Your task to perform on an android device: Search for "razer blade" on target.com, select the first entry, and add it to the cart. Image 0: 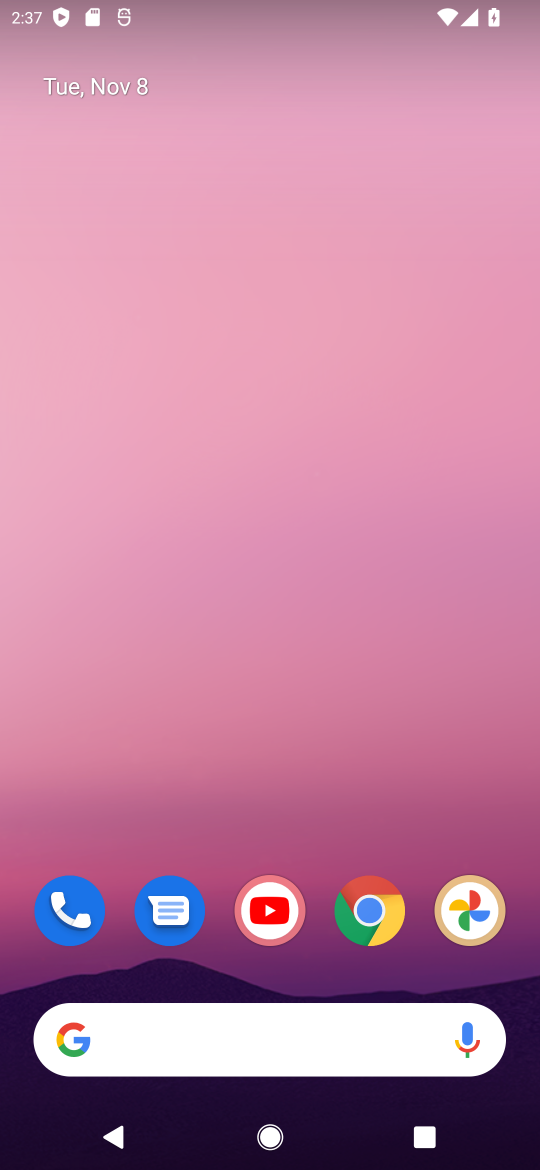
Step 0: drag from (304, 991) to (314, 324)
Your task to perform on an android device: Search for "razer blade" on target.com, select the first entry, and add it to the cart. Image 1: 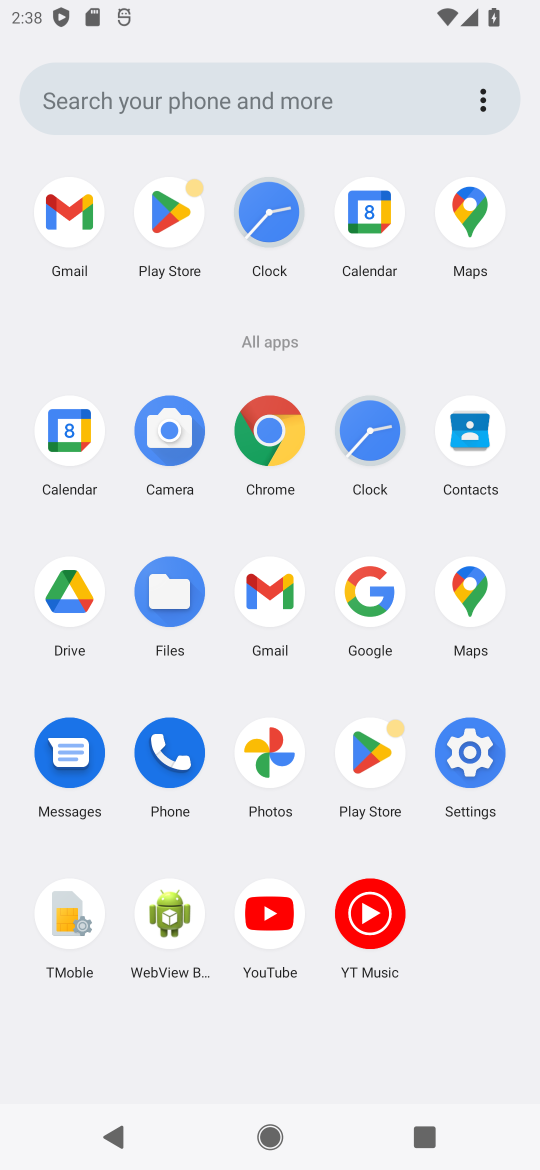
Step 1: click (269, 445)
Your task to perform on an android device: Search for "razer blade" on target.com, select the first entry, and add it to the cart. Image 2: 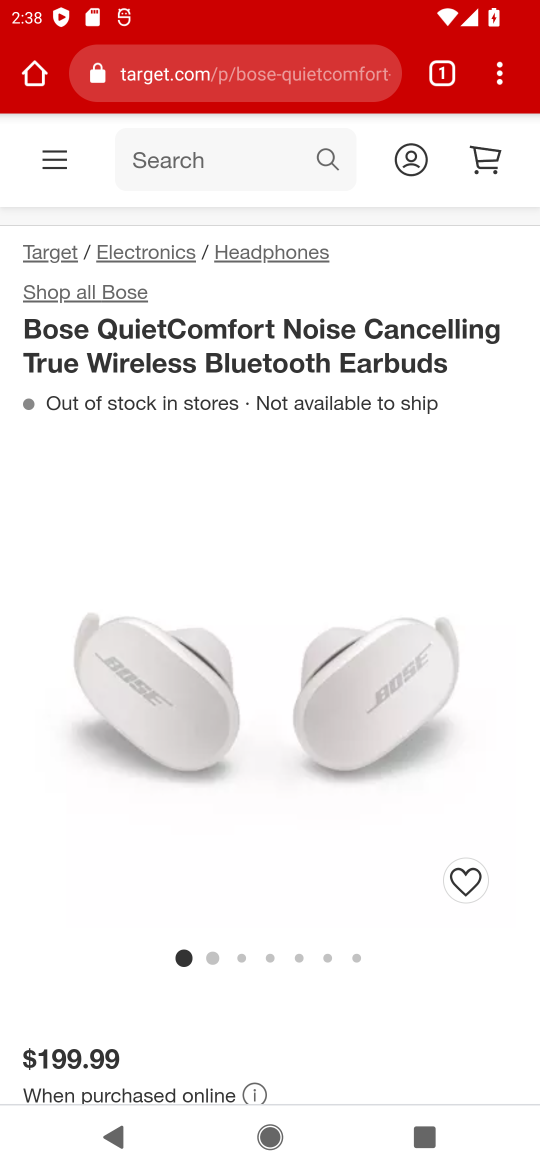
Step 2: click (328, 77)
Your task to perform on an android device: Search for "razer blade" on target.com, select the first entry, and add it to the cart. Image 3: 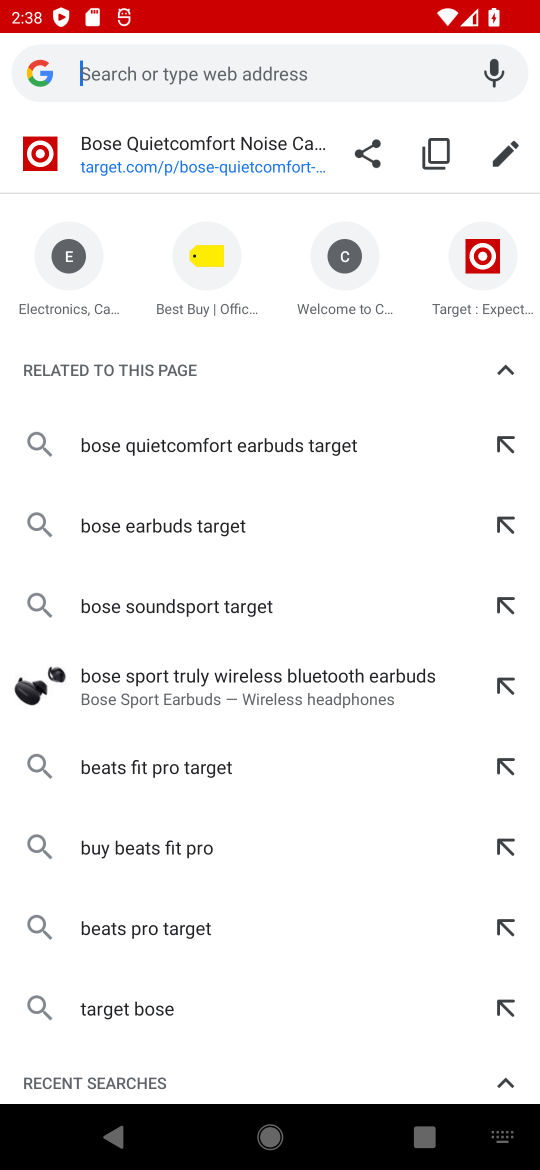
Step 3: type "target.com"
Your task to perform on an android device: Search for "razer blade" on target.com, select the first entry, and add it to the cart. Image 4: 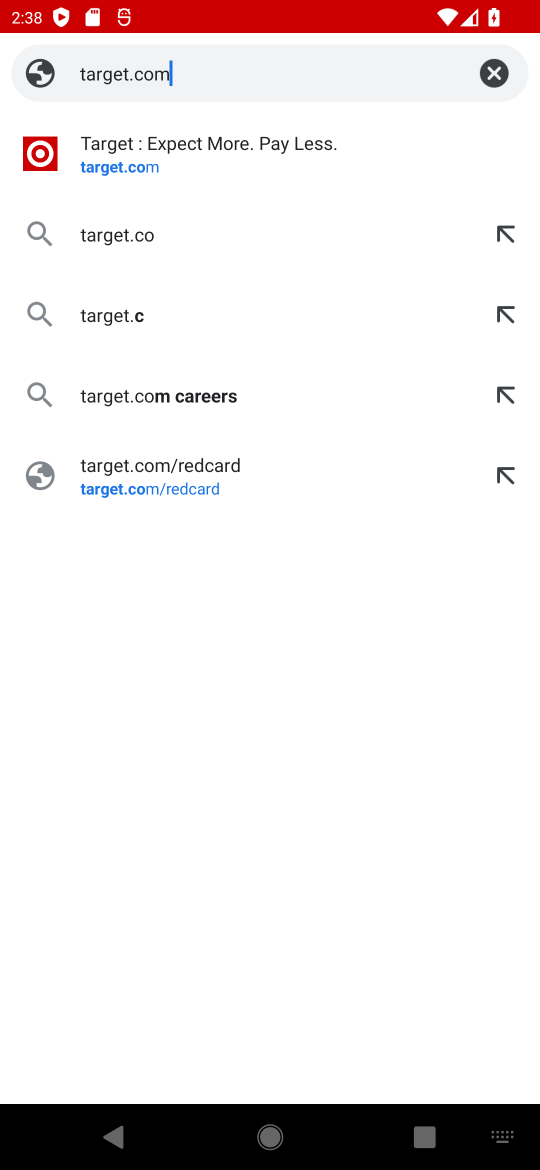
Step 4: press enter
Your task to perform on an android device: Search for "razer blade" on target.com, select the first entry, and add it to the cart. Image 5: 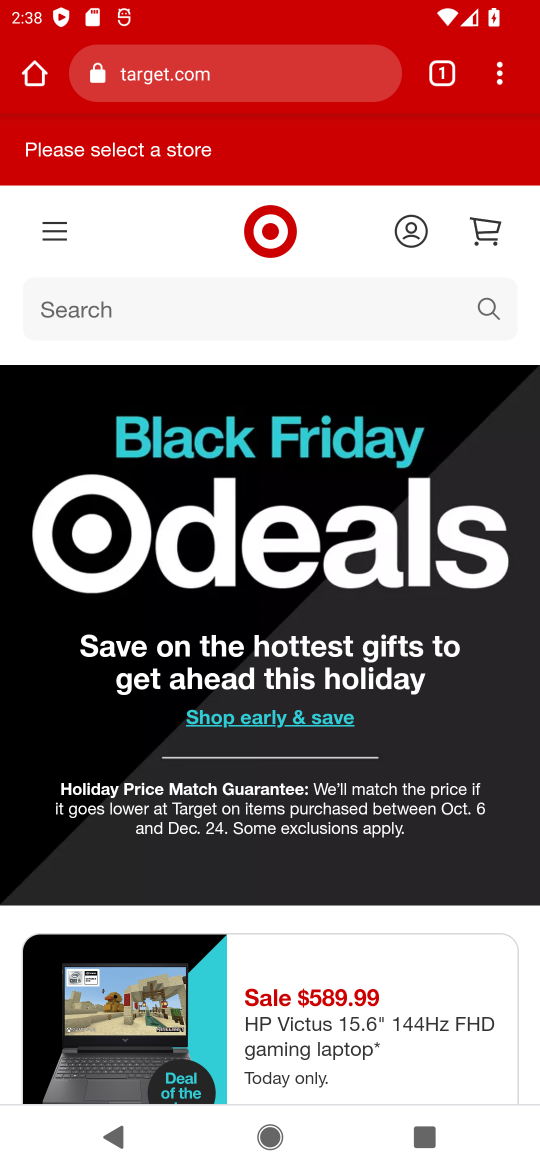
Step 5: click (296, 307)
Your task to perform on an android device: Search for "razer blade" on target.com, select the first entry, and add it to the cart. Image 6: 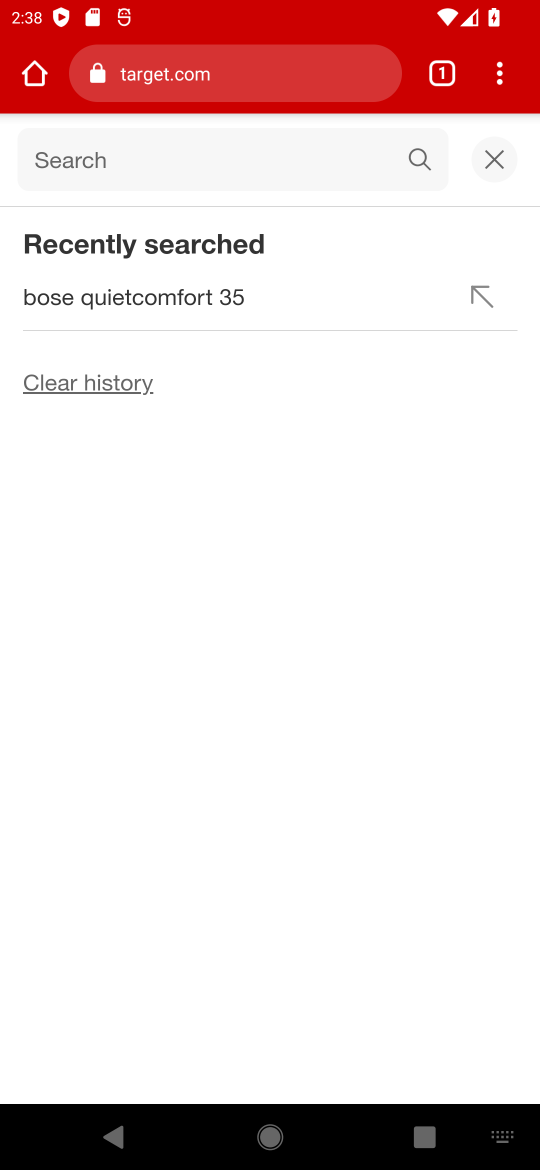
Step 6: type "razer blade"
Your task to perform on an android device: Search for "razer blade" on target.com, select the first entry, and add it to the cart. Image 7: 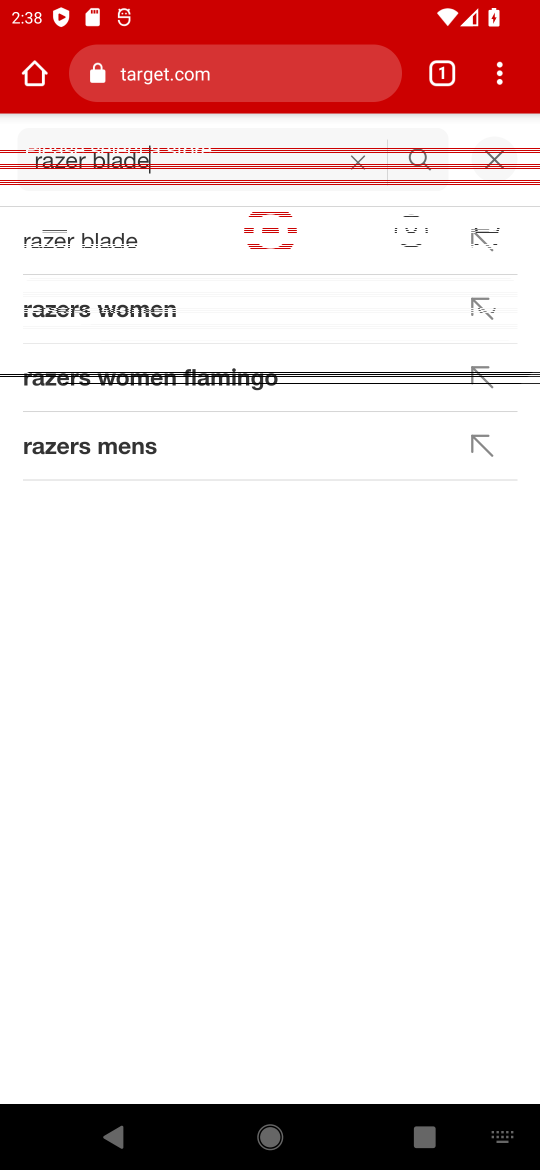
Step 7: press enter
Your task to perform on an android device: Search for "razer blade" on target.com, select the first entry, and add it to the cart. Image 8: 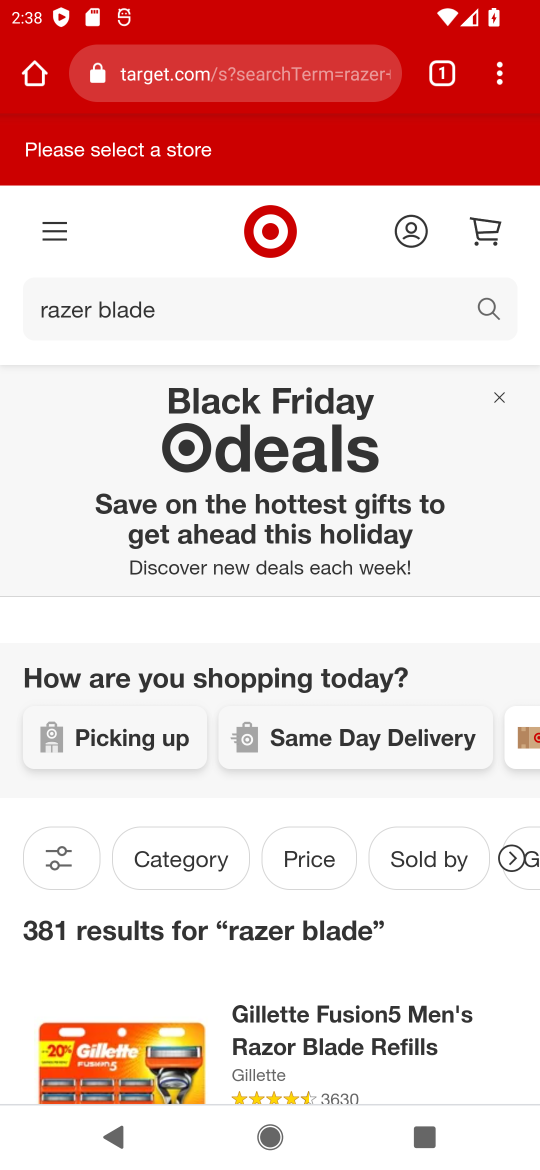
Step 8: task complete